Your task to perform on an android device: change the clock display to show seconds Image 0: 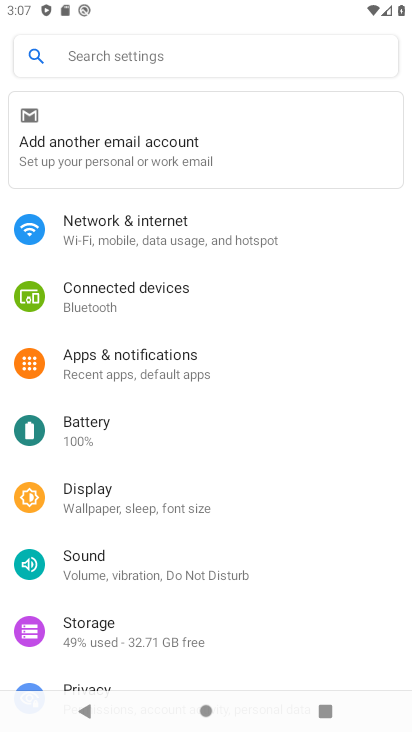
Step 0: press back button
Your task to perform on an android device: change the clock display to show seconds Image 1: 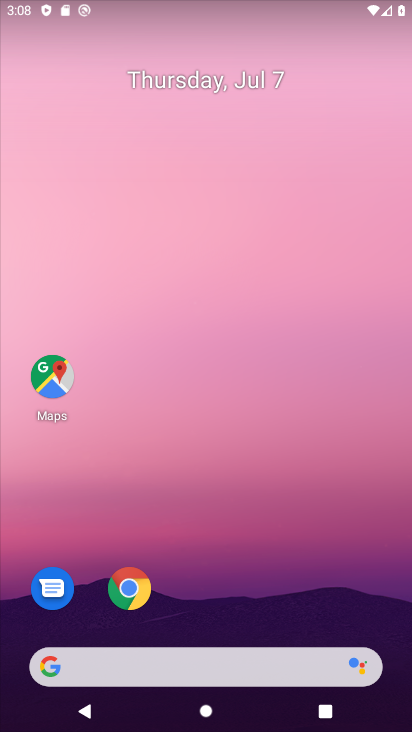
Step 1: drag from (276, 682) to (221, 101)
Your task to perform on an android device: change the clock display to show seconds Image 2: 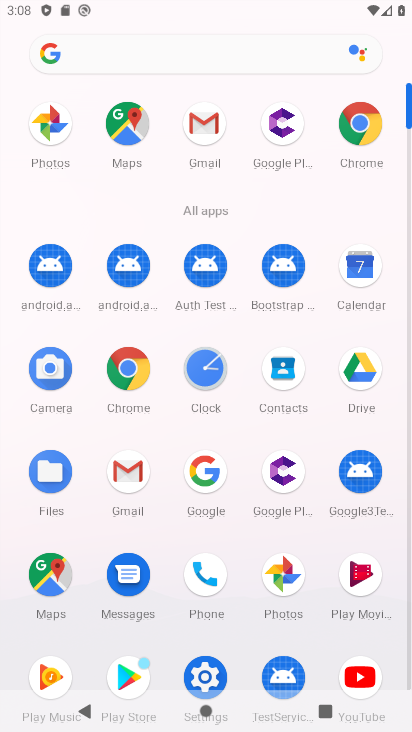
Step 2: click (212, 351)
Your task to perform on an android device: change the clock display to show seconds Image 3: 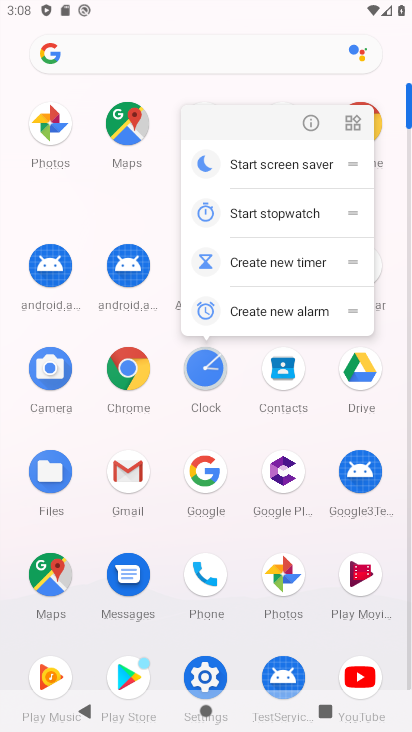
Step 3: click (194, 374)
Your task to perform on an android device: change the clock display to show seconds Image 4: 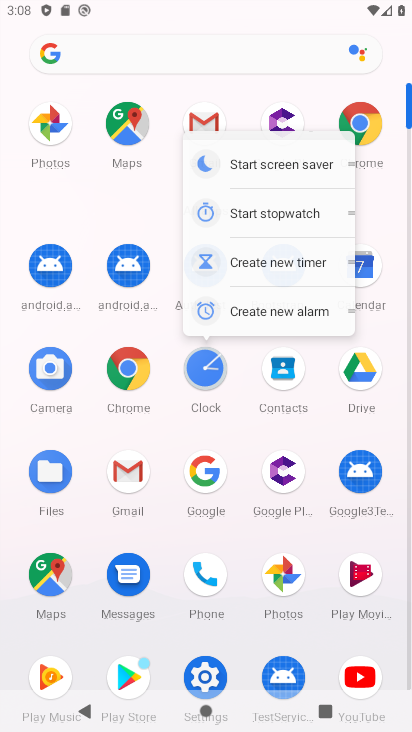
Step 4: click (202, 373)
Your task to perform on an android device: change the clock display to show seconds Image 5: 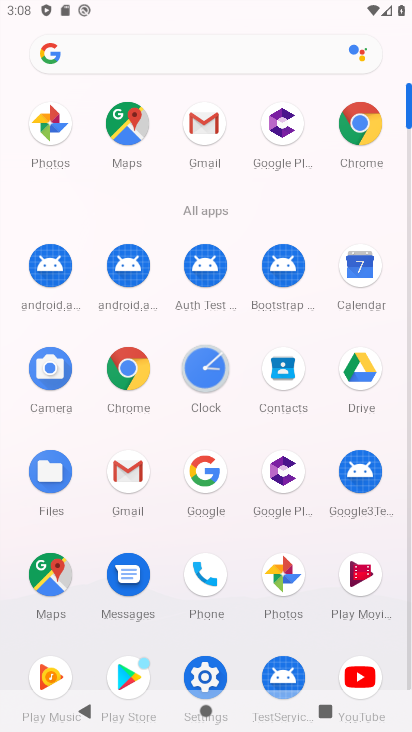
Step 5: click (202, 373)
Your task to perform on an android device: change the clock display to show seconds Image 6: 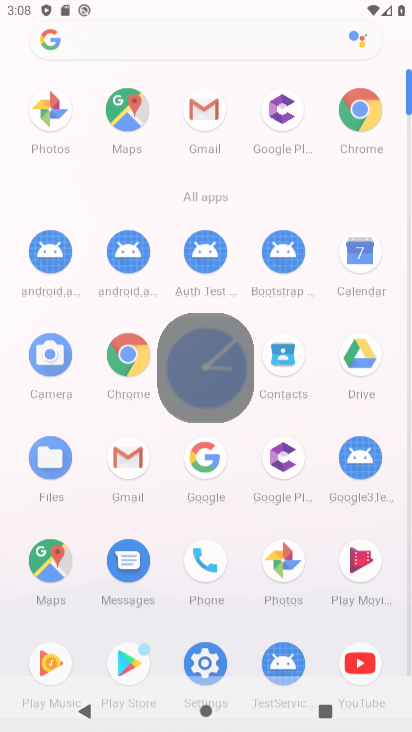
Step 6: click (206, 370)
Your task to perform on an android device: change the clock display to show seconds Image 7: 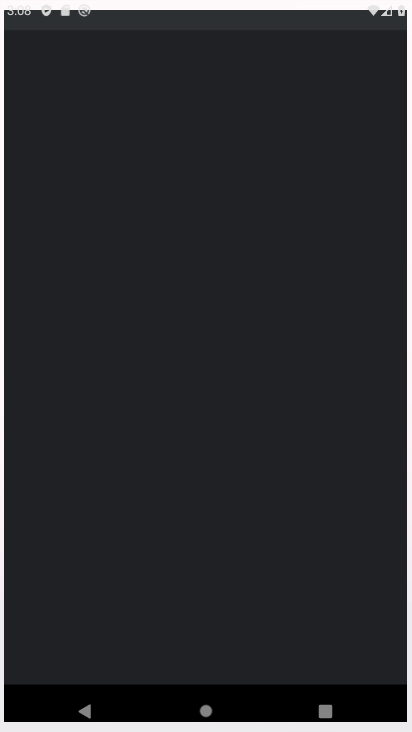
Step 7: click (207, 368)
Your task to perform on an android device: change the clock display to show seconds Image 8: 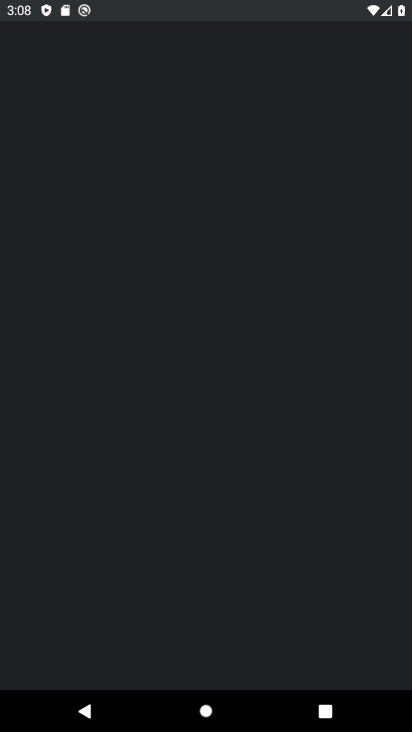
Step 8: click (208, 368)
Your task to perform on an android device: change the clock display to show seconds Image 9: 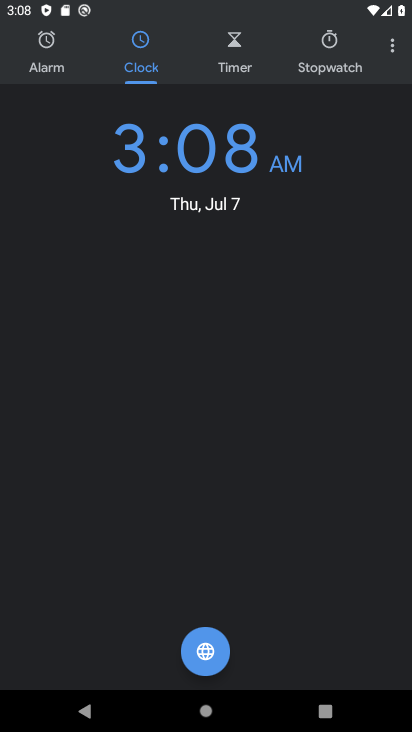
Step 9: click (395, 51)
Your task to perform on an android device: change the clock display to show seconds Image 10: 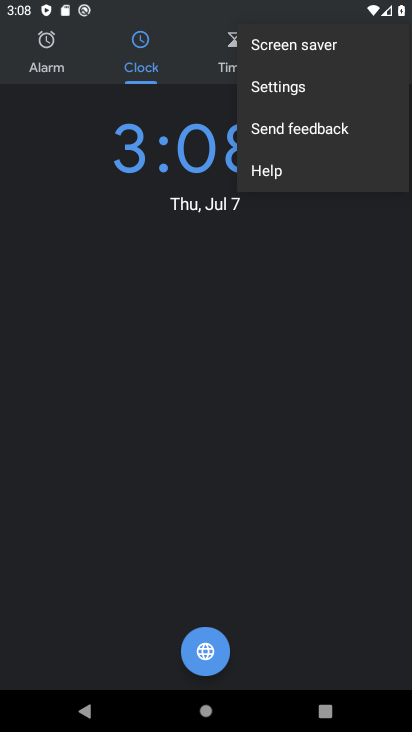
Step 10: click (275, 90)
Your task to perform on an android device: change the clock display to show seconds Image 11: 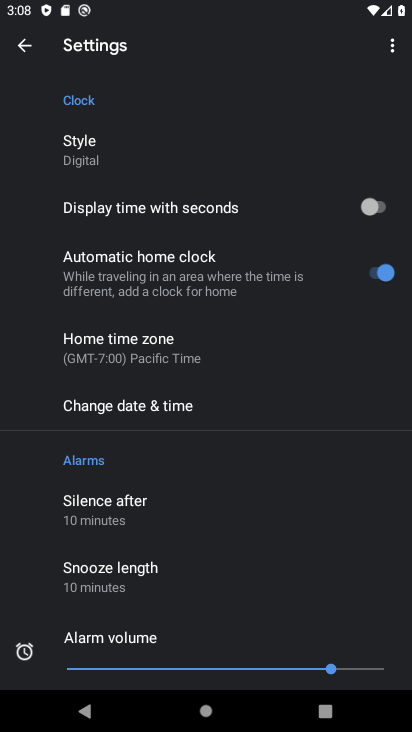
Step 11: click (377, 204)
Your task to perform on an android device: change the clock display to show seconds Image 12: 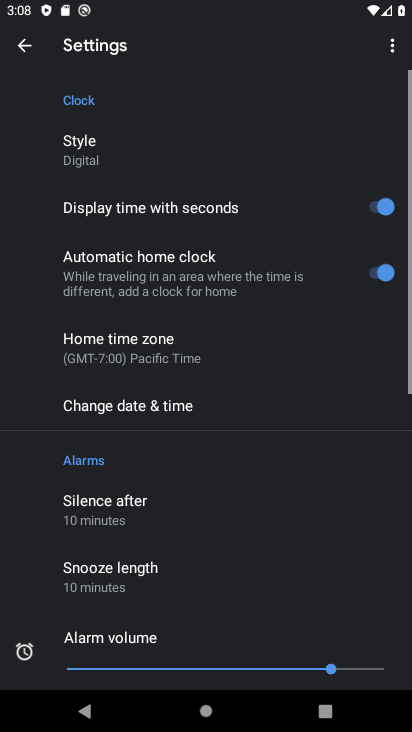
Step 12: task complete